Your task to perform on an android device: Open maps Image 0: 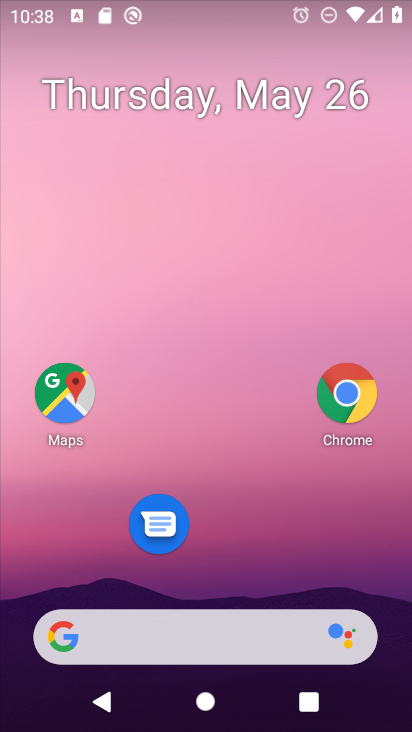
Step 0: click (71, 394)
Your task to perform on an android device: Open maps Image 1: 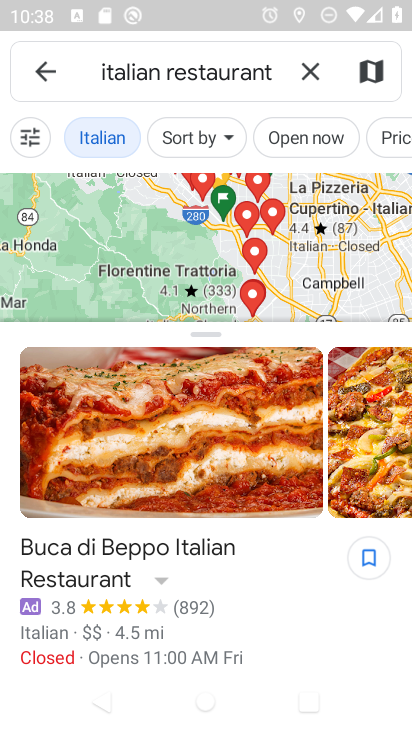
Step 1: click (312, 67)
Your task to perform on an android device: Open maps Image 2: 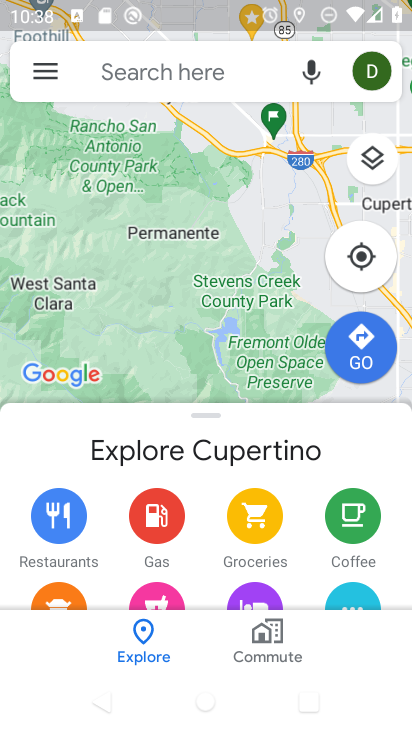
Step 2: task complete